Your task to perform on an android device: turn off location Image 0: 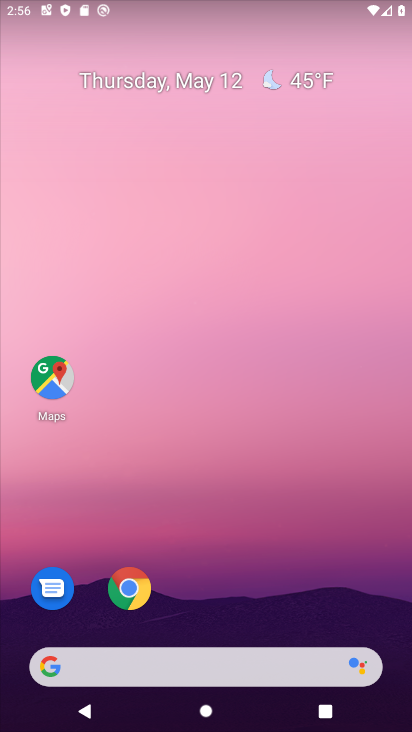
Step 0: drag from (333, 584) to (287, 106)
Your task to perform on an android device: turn off location Image 1: 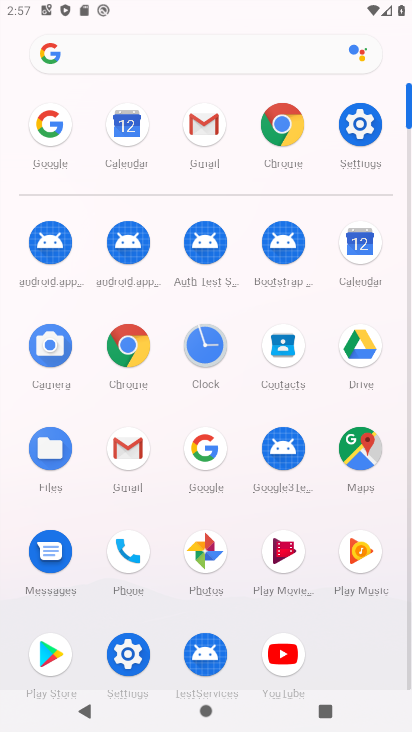
Step 1: click (123, 653)
Your task to perform on an android device: turn off location Image 2: 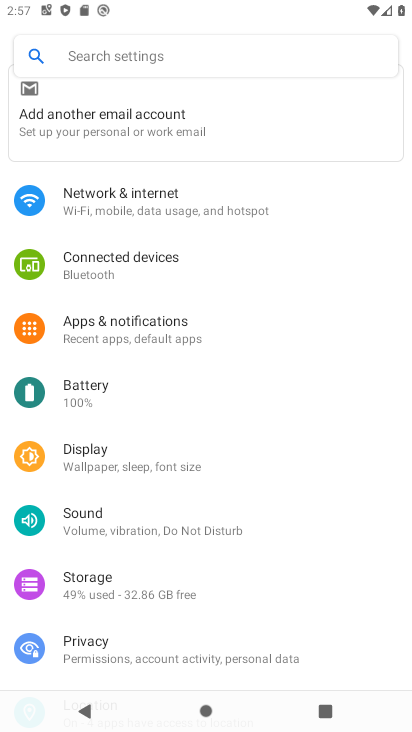
Step 2: drag from (119, 634) to (140, 353)
Your task to perform on an android device: turn off location Image 3: 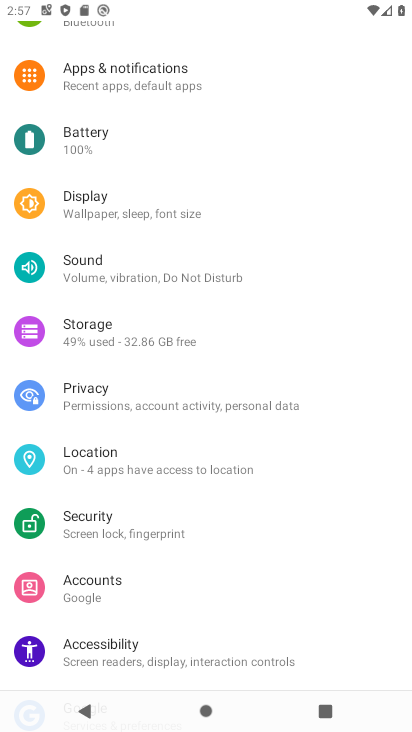
Step 3: click (134, 471)
Your task to perform on an android device: turn off location Image 4: 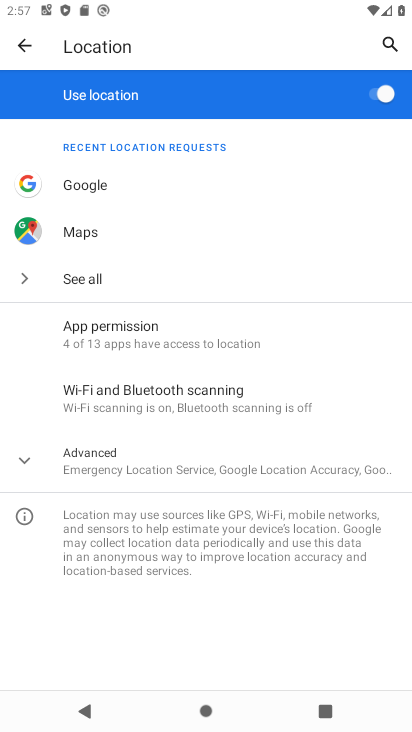
Step 4: click (352, 97)
Your task to perform on an android device: turn off location Image 5: 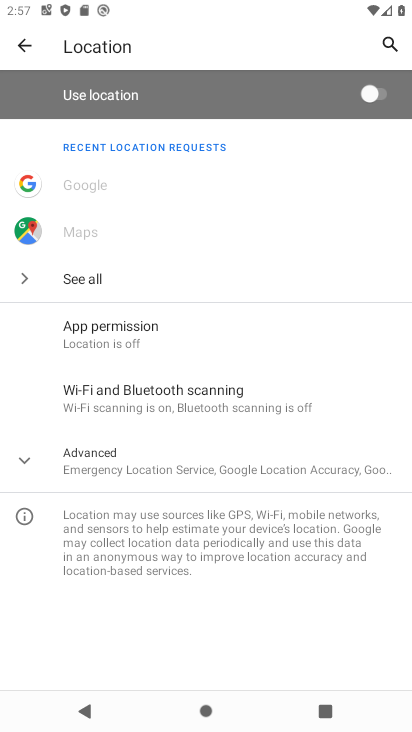
Step 5: task complete